Your task to perform on an android device: Open Youtube and go to "Your channel" Image 0: 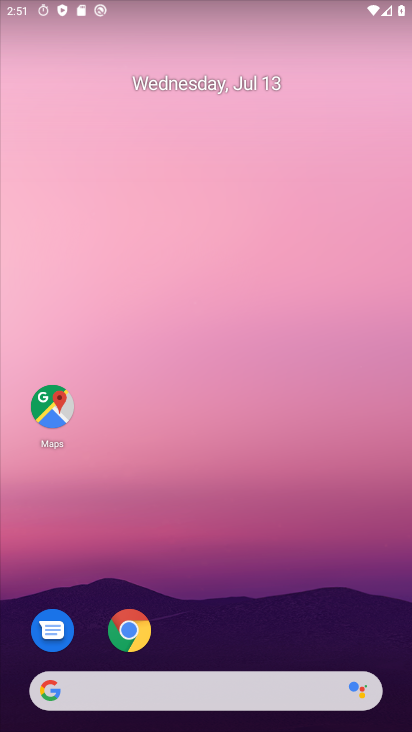
Step 0: drag from (27, 689) to (227, 186)
Your task to perform on an android device: Open Youtube and go to "Your channel" Image 1: 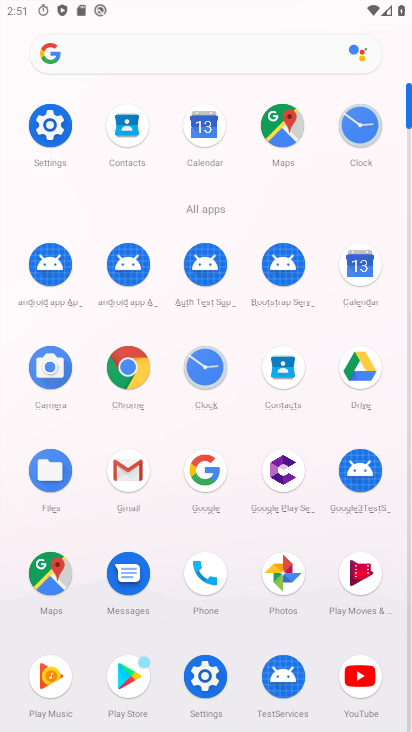
Step 1: click (346, 674)
Your task to perform on an android device: Open Youtube and go to "Your channel" Image 2: 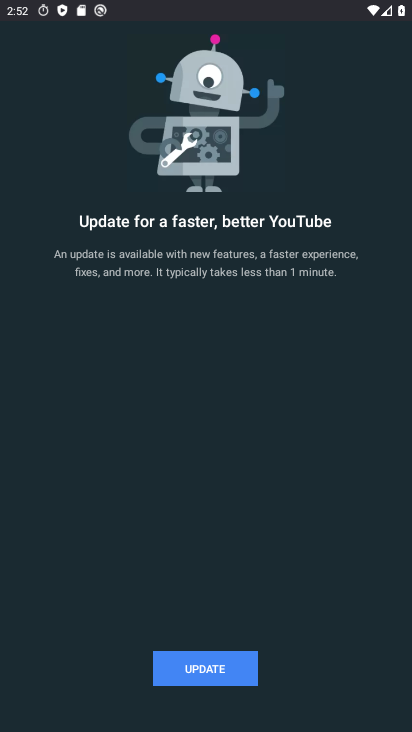
Step 2: click (195, 673)
Your task to perform on an android device: Open Youtube and go to "Your channel" Image 3: 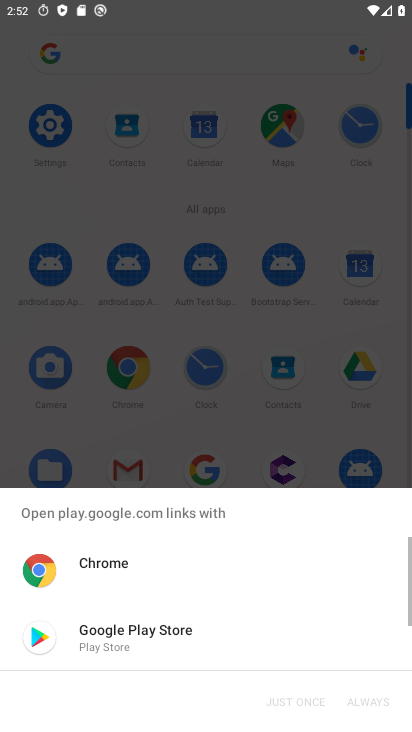
Step 3: click (102, 628)
Your task to perform on an android device: Open Youtube and go to "Your channel" Image 4: 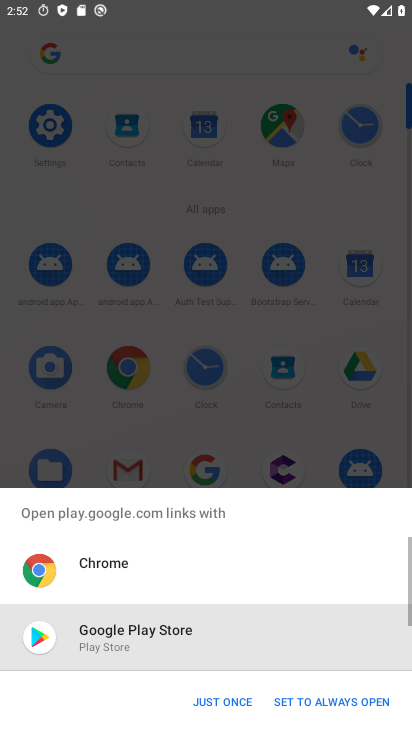
Step 4: click (210, 698)
Your task to perform on an android device: Open Youtube and go to "Your channel" Image 5: 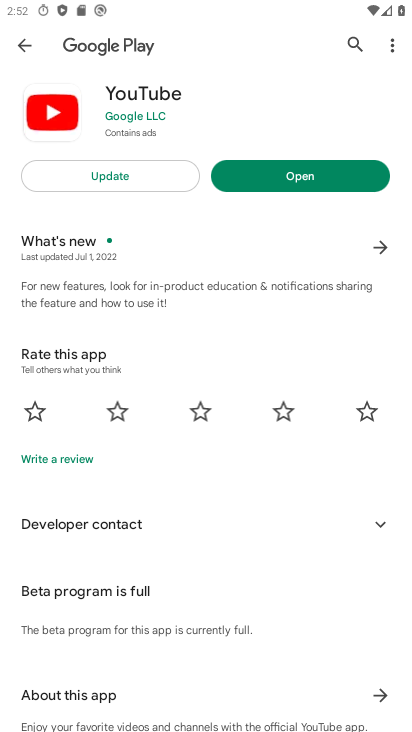
Step 5: click (311, 177)
Your task to perform on an android device: Open Youtube and go to "Your channel" Image 6: 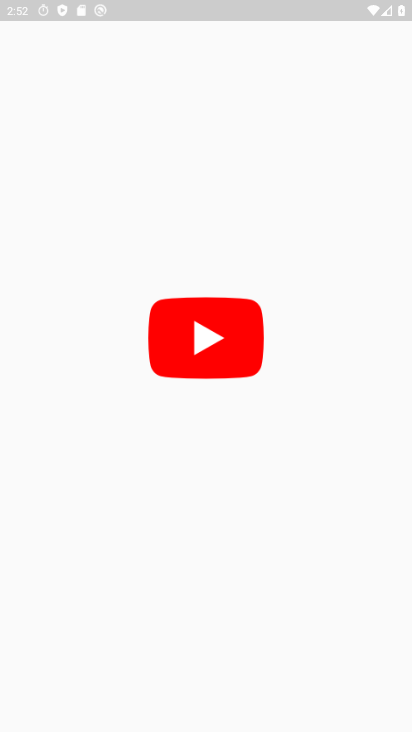
Step 6: click (274, 177)
Your task to perform on an android device: Open Youtube and go to "Your channel" Image 7: 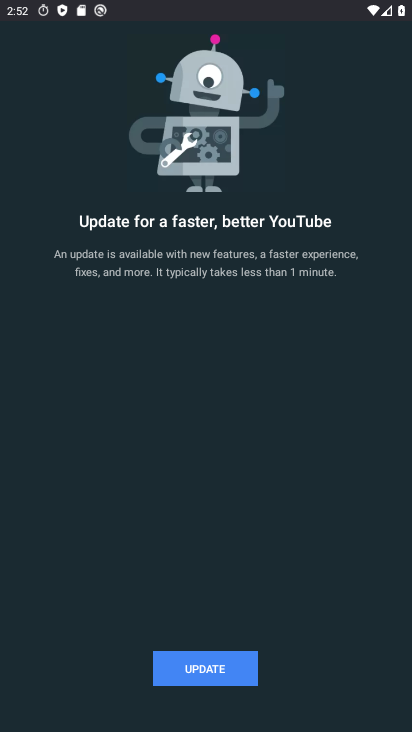
Step 7: task complete